Your task to perform on an android device: empty trash in google photos Image 0: 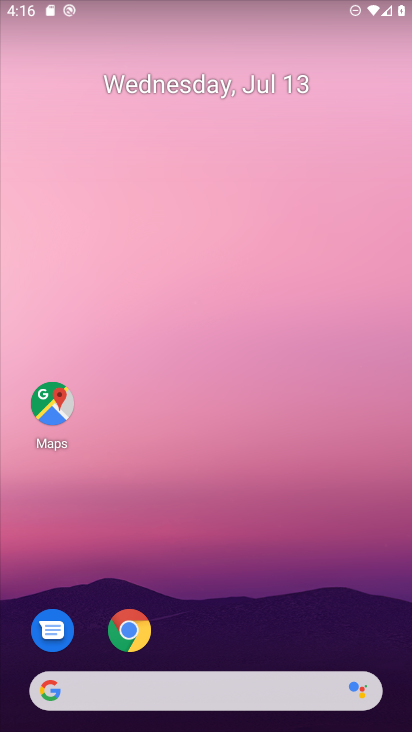
Step 0: drag from (160, 355) to (176, 165)
Your task to perform on an android device: empty trash in google photos Image 1: 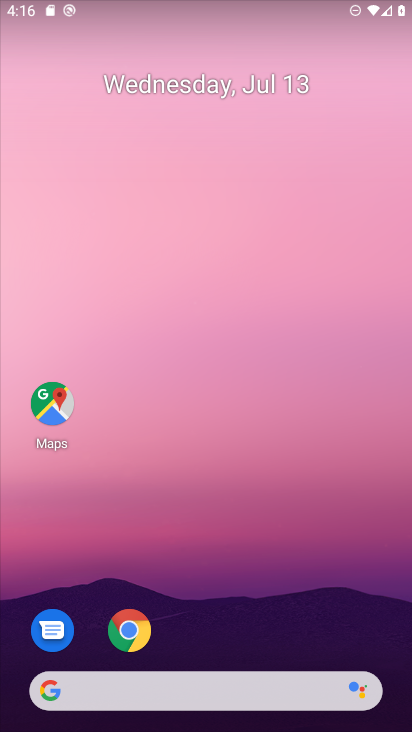
Step 1: click (193, 36)
Your task to perform on an android device: empty trash in google photos Image 2: 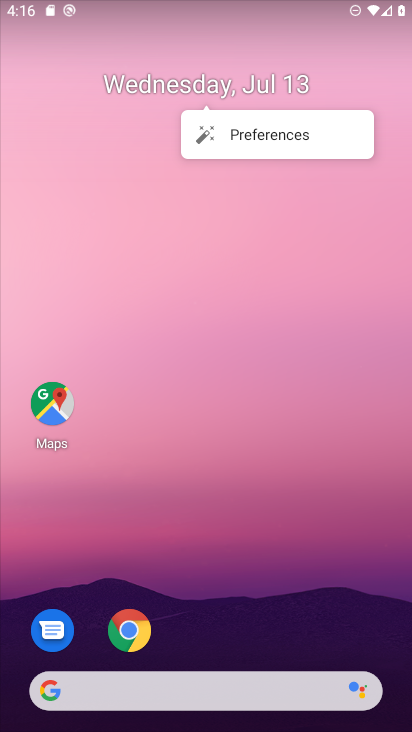
Step 2: click (197, 653)
Your task to perform on an android device: empty trash in google photos Image 3: 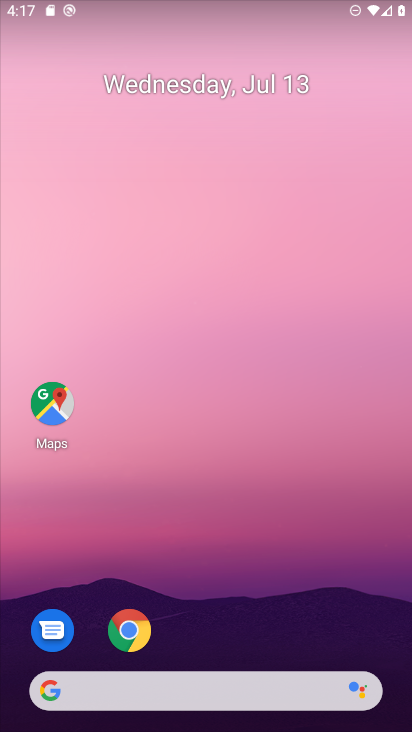
Step 3: drag from (185, 644) to (180, 176)
Your task to perform on an android device: empty trash in google photos Image 4: 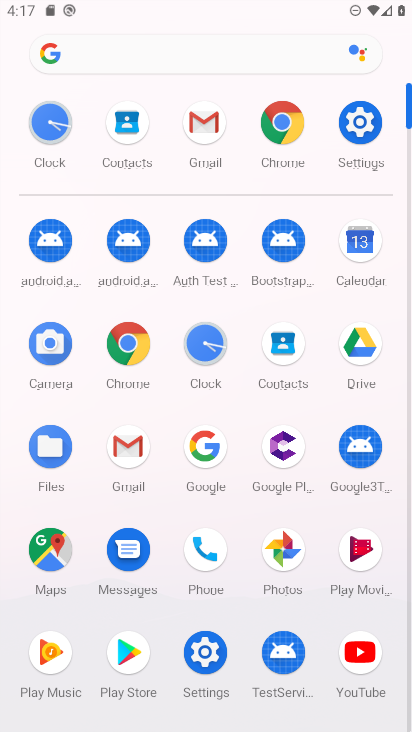
Step 4: click (288, 570)
Your task to perform on an android device: empty trash in google photos Image 5: 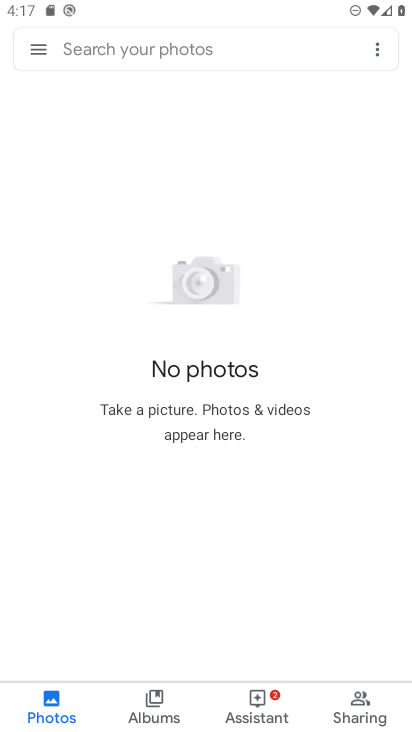
Step 5: click (43, 55)
Your task to perform on an android device: empty trash in google photos Image 6: 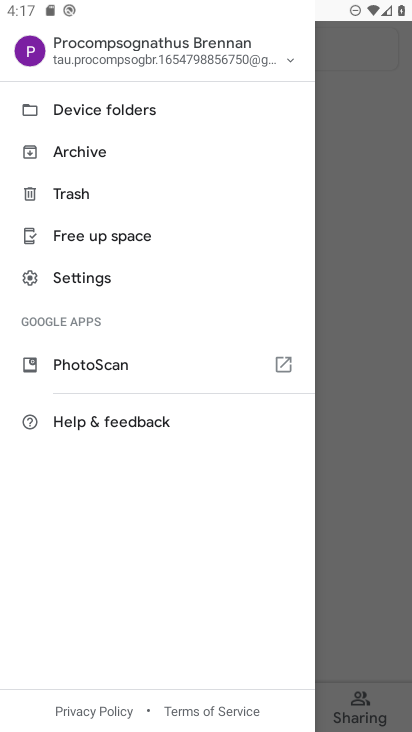
Step 6: click (82, 198)
Your task to perform on an android device: empty trash in google photos Image 7: 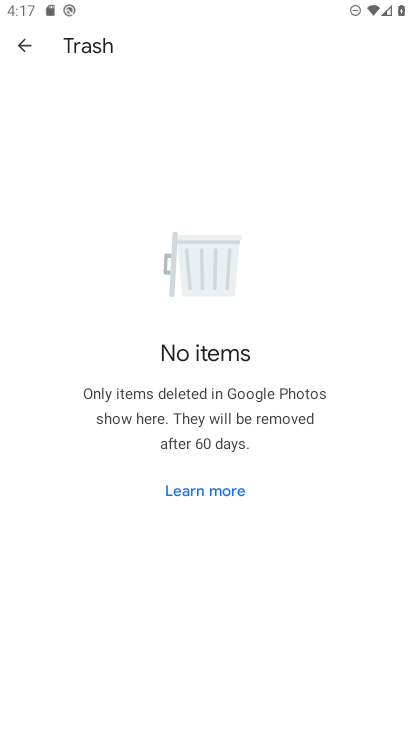
Step 7: task complete